Your task to perform on an android device: Empty the shopping cart on bestbuy.com. Search for macbook pro 13 inch on bestbuy.com, select the first entry, and add it to the cart. Image 0: 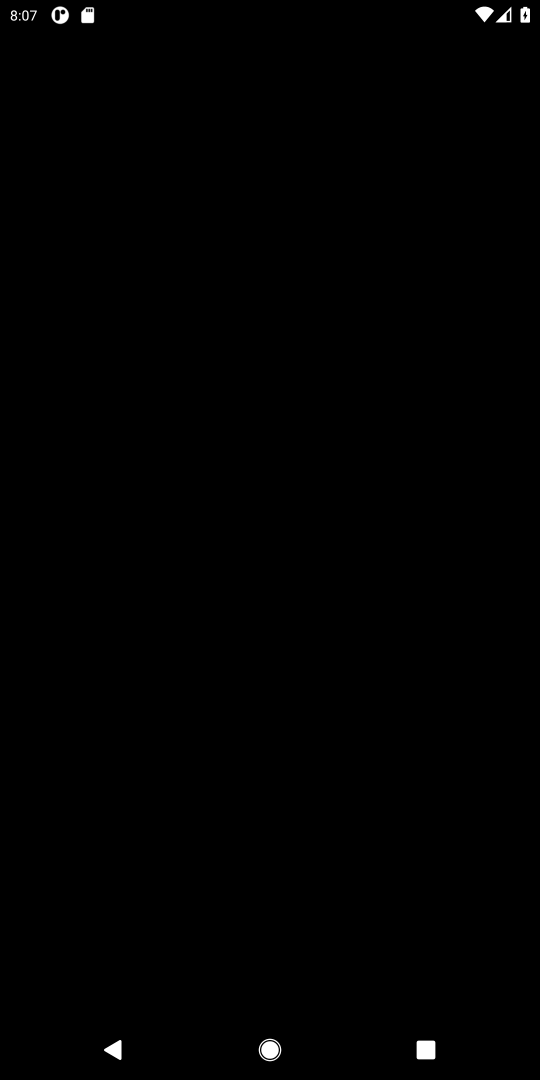
Step 0: press home button
Your task to perform on an android device: Empty the shopping cart on bestbuy.com. Search for macbook pro 13 inch on bestbuy.com, select the first entry, and add it to the cart. Image 1: 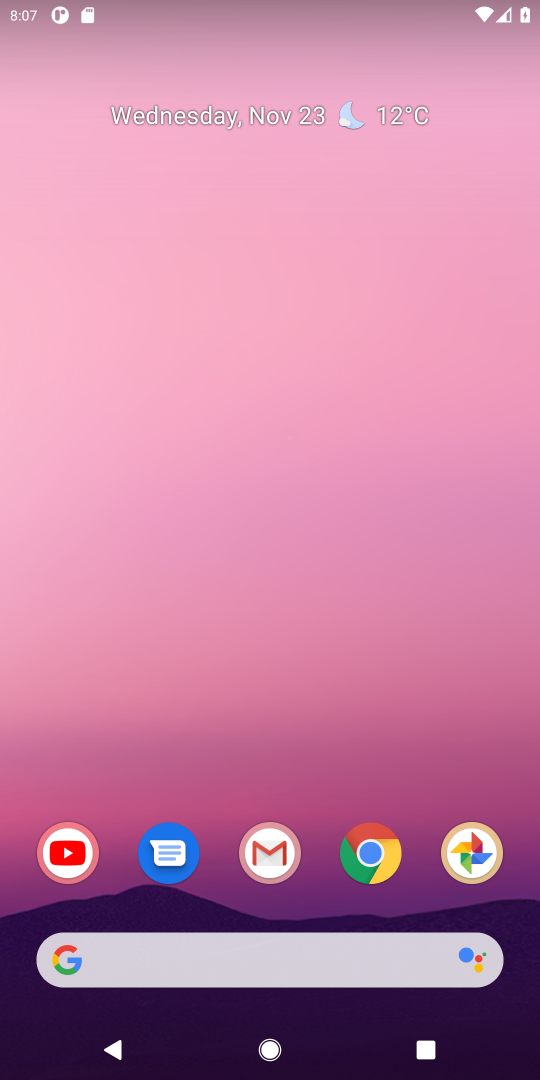
Step 1: click (370, 853)
Your task to perform on an android device: Empty the shopping cart on bestbuy.com. Search for macbook pro 13 inch on bestbuy.com, select the first entry, and add it to the cart. Image 2: 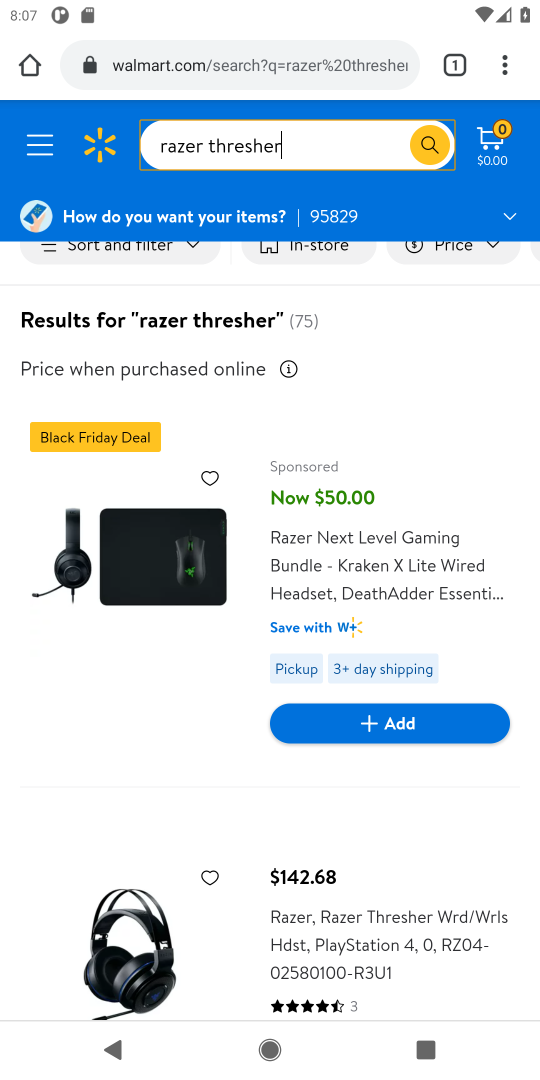
Step 2: click (201, 62)
Your task to perform on an android device: Empty the shopping cart on bestbuy.com. Search for macbook pro 13 inch on bestbuy.com, select the first entry, and add it to the cart. Image 3: 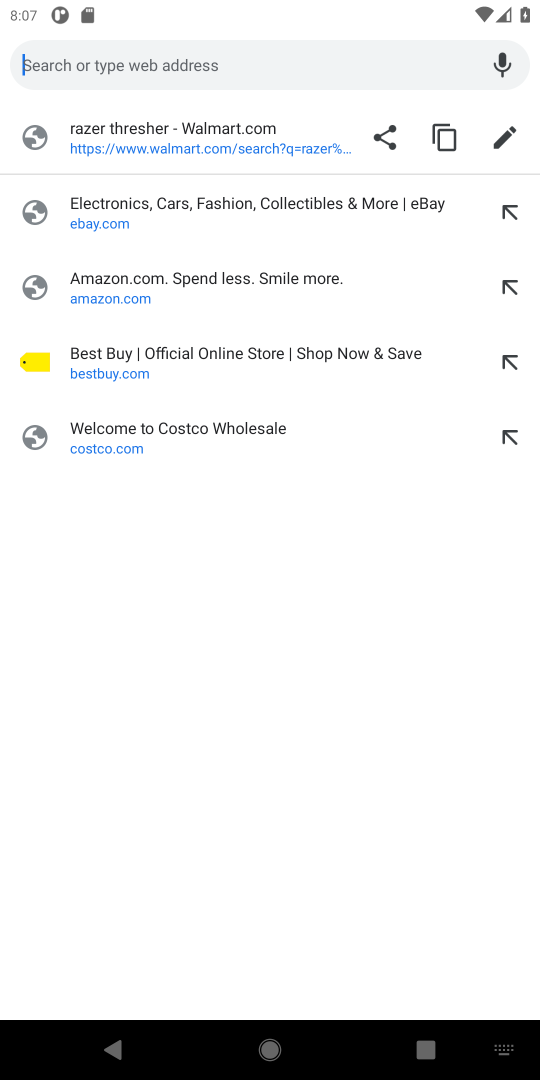
Step 3: click (96, 365)
Your task to perform on an android device: Empty the shopping cart on bestbuy.com. Search for macbook pro 13 inch on bestbuy.com, select the first entry, and add it to the cart. Image 4: 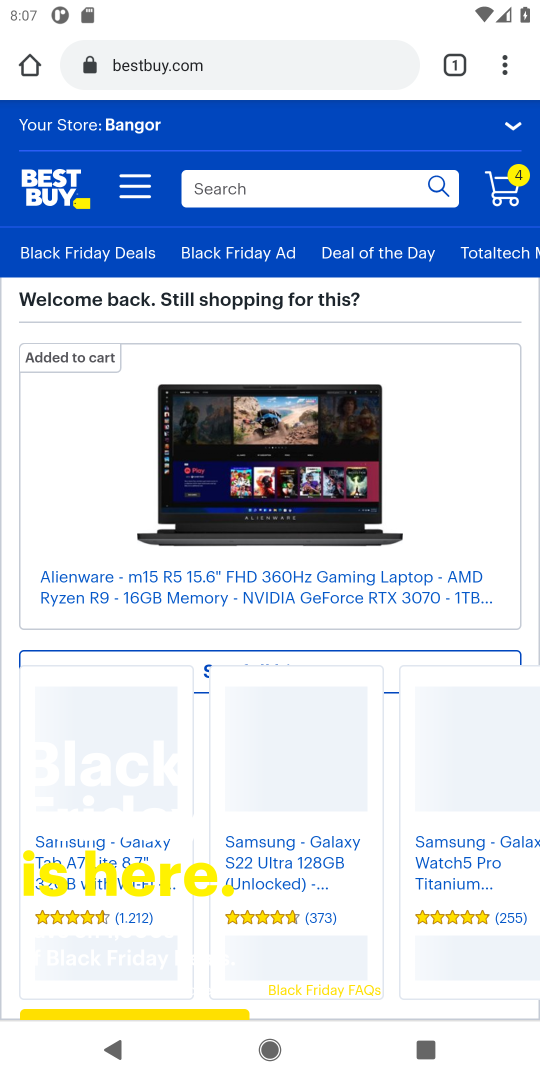
Step 4: click (509, 188)
Your task to perform on an android device: Empty the shopping cart on bestbuy.com. Search for macbook pro 13 inch on bestbuy.com, select the first entry, and add it to the cart. Image 5: 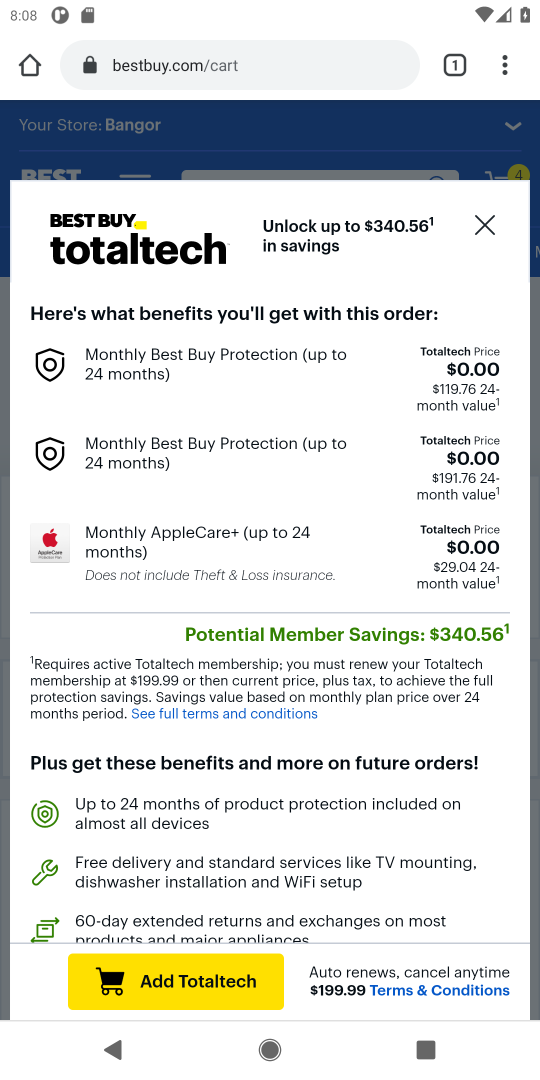
Step 5: click (478, 226)
Your task to perform on an android device: Empty the shopping cart on bestbuy.com. Search for macbook pro 13 inch on bestbuy.com, select the first entry, and add it to the cart. Image 6: 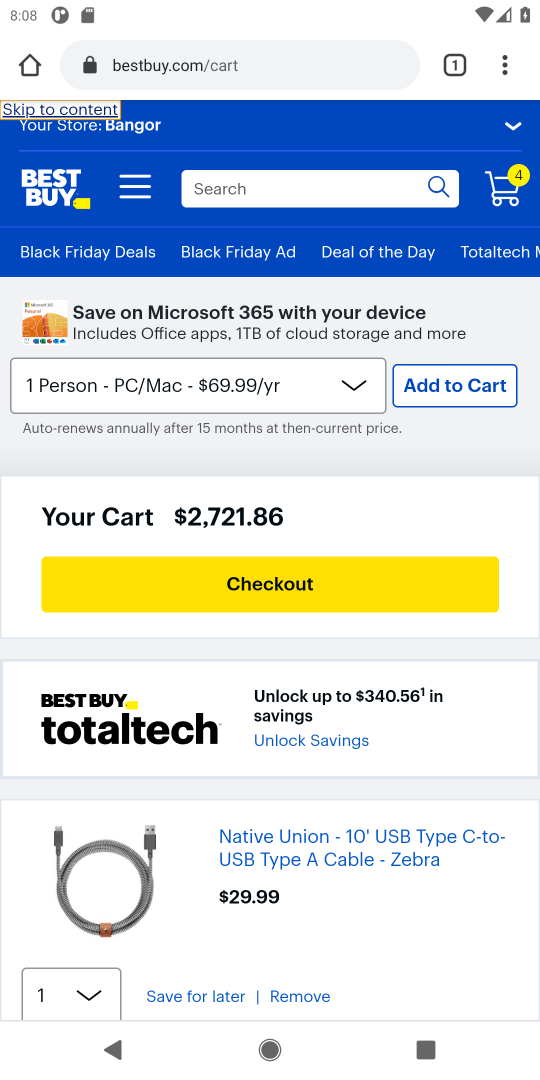
Step 6: drag from (331, 497) to (308, 195)
Your task to perform on an android device: Empty the shopping cart on bestbuy.com. Search for macbook pro 13 inch on bestbuy.com, select the first entry, and add it to the cart. Image 7: 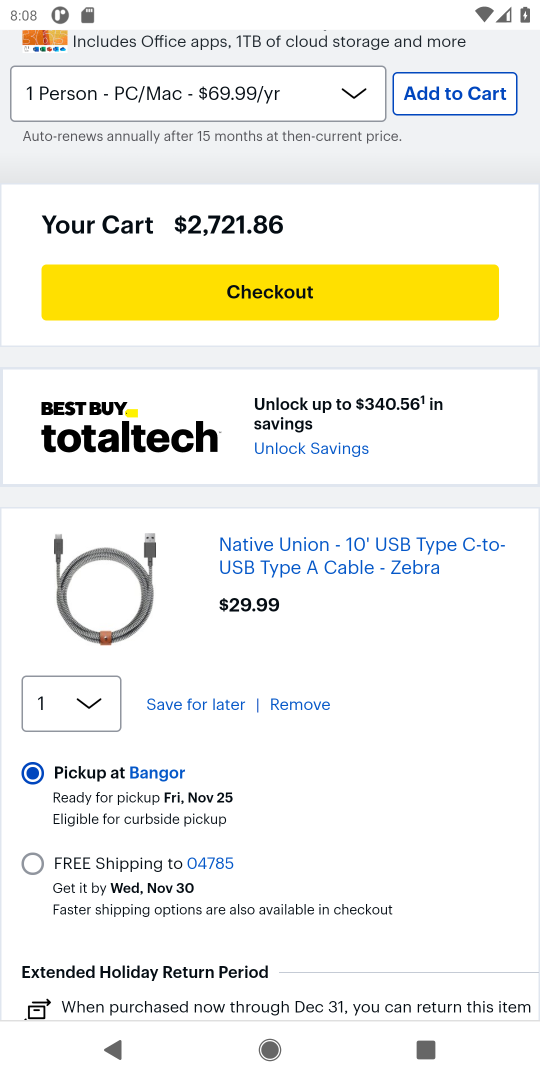
Step 7: click (305, 710)
Your task to perform on an android device: Empty the shopping cart on bestbuy.com. Search for macbook pro 13 inch on bestbuy.com, select the first entry, and add it to the cart. Image 8: 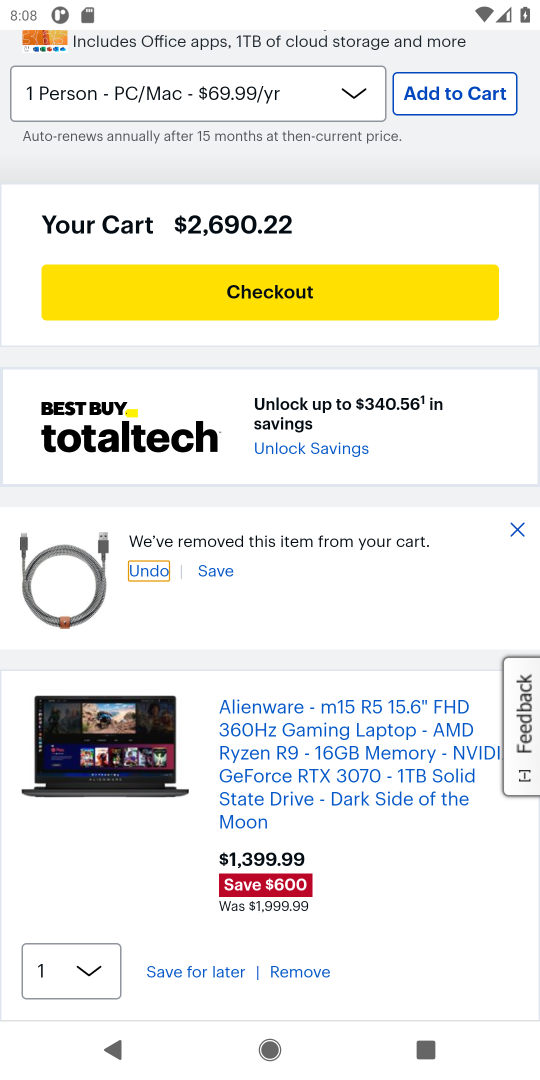
Step 8: drag from (301, 778) to (305, 403)
Your task to perform on an android device: Empty the shopping cart on bestbuy.com. Search for macbook pro 13 inch on bestbuy.com, select the first entry, and add it to the cart. Image 9: 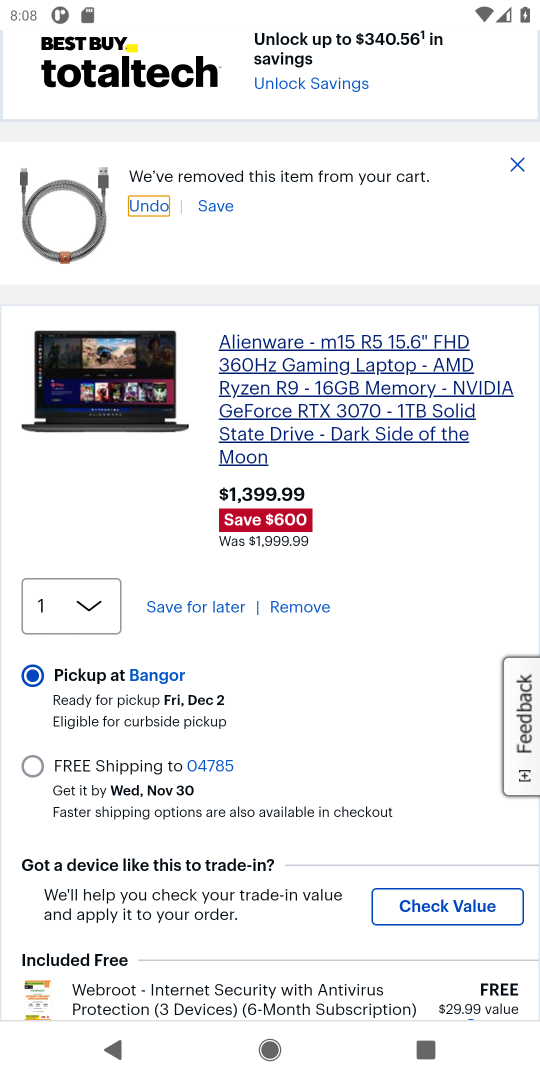
Step 9: click (292, 605)
Your task to perform on an android device: Empty the shopping cart on bestbuy.com. Search for macbook pro 13 inch on bestbuy.com, select the first entry, and add it to the cart. Image 10: 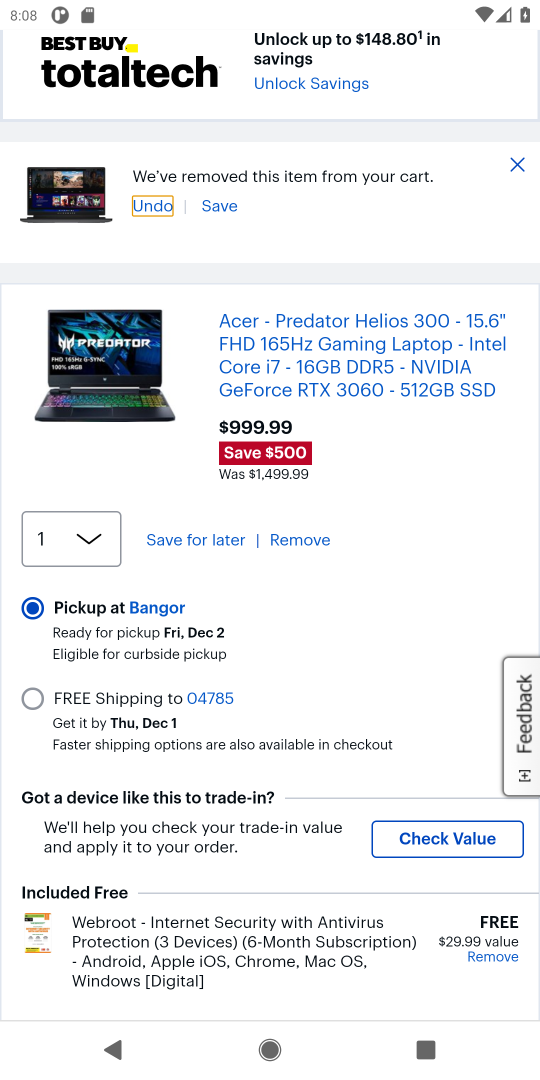
Step 10: click (296, 544)
Your task to perform on an android device: Empty the shopping cart on bestbuy.com. Search for macbook pro 13 inch on bestbuy.com, select the first entry, and add it to the cart. Image 11: 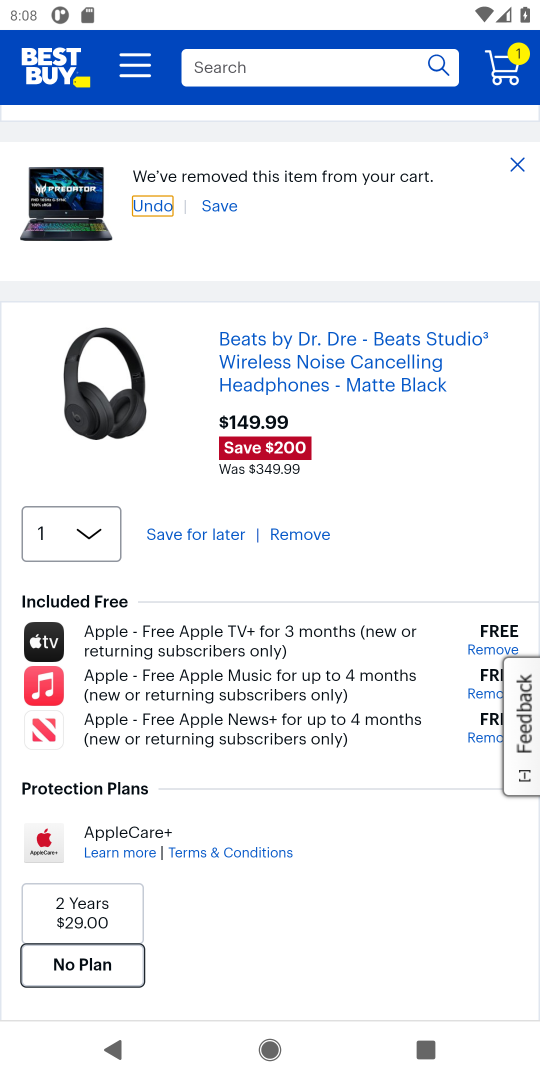
Step 11: click (296, 544)
Your task to perform on an android device: Empty the shopping cart on bestbuy.com. Search for macbook pro 13 inch on bestbuy.com, select the first entry, and add it to the cart. Image 12: 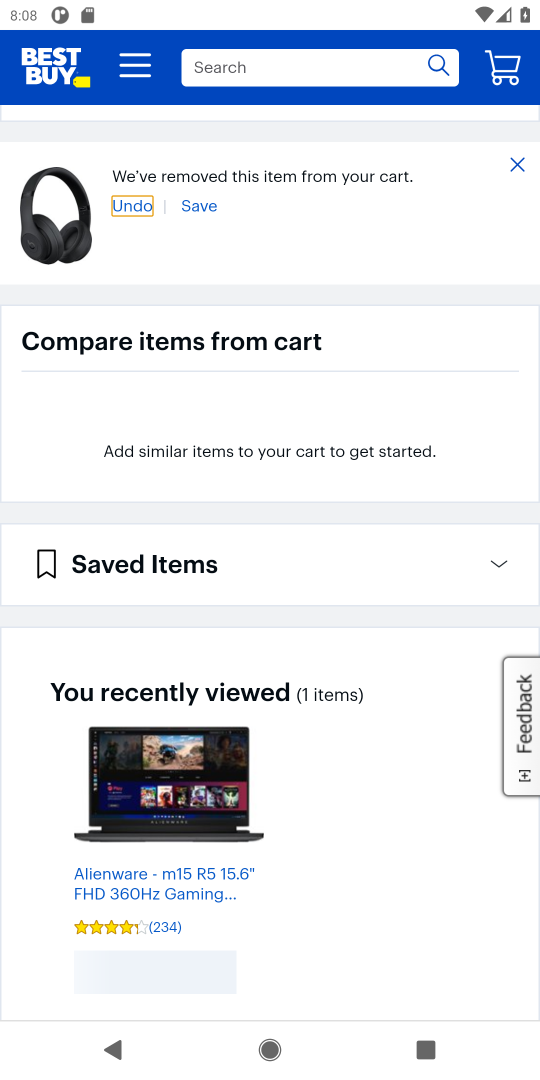
Step 12: drag from (385, 439) to (372, 636)
Your task to perform on an android device: Empty the shopping cart on bestbuy.com. Search for macbook pro 13 inch on bestbuy.com, select the first entry, and add it to the cart. Image 13: 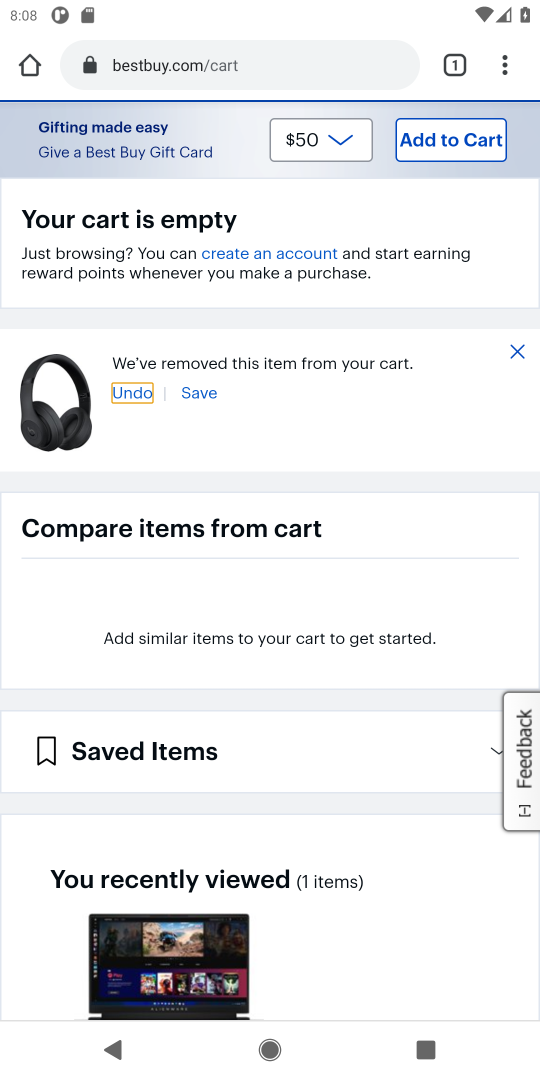
Step 13: drag from (249, 348) to (242, 673)
Your task to perform on an android device: Empty the shopping cart on bestbuy.com. Search for macbook pro 13 inch on bestbuy.com, select the first entry, and add it to the cart. Image 14: 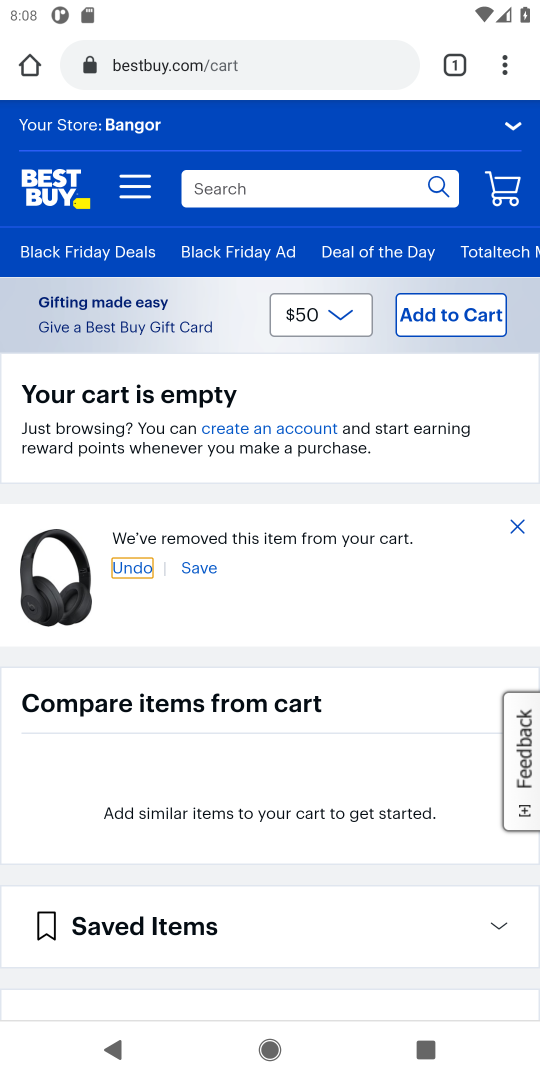
Step 14: click (228, 193)
Your task to perform on an android device: Empty the shopping cart on bestbuy.com. Search for macbook pro 13 inch on bestbuy.com, select the first entry, and add it to the cart. Image 15: 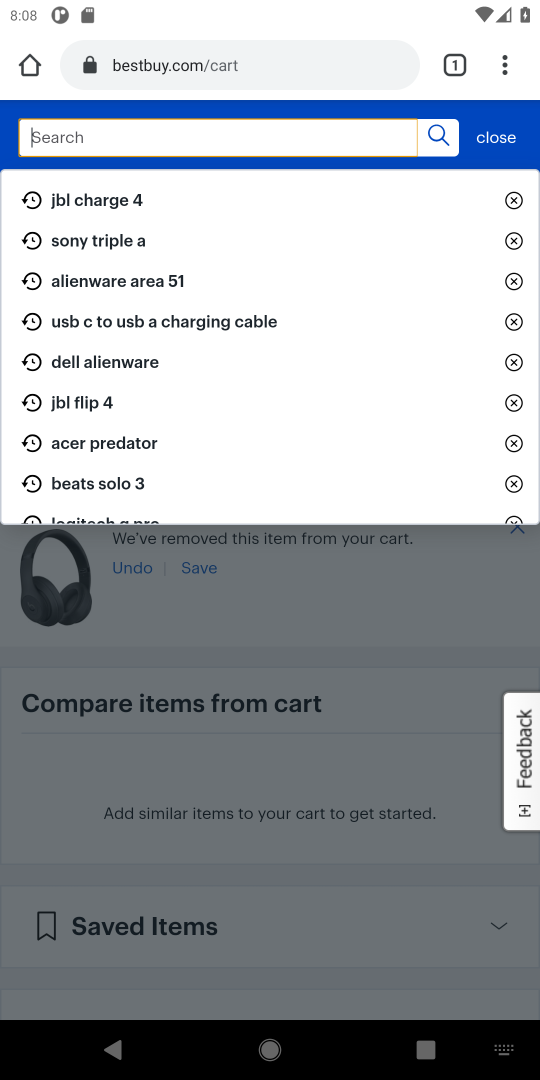
Step 15: type " macbook pro 13 inch "
Your task to perform on an android device: Empty the shopping cart on bestbuy.com. Search for macbook pro 13 inch on bestbuy.com, select the first entry, and add it to the cart. Image 16: 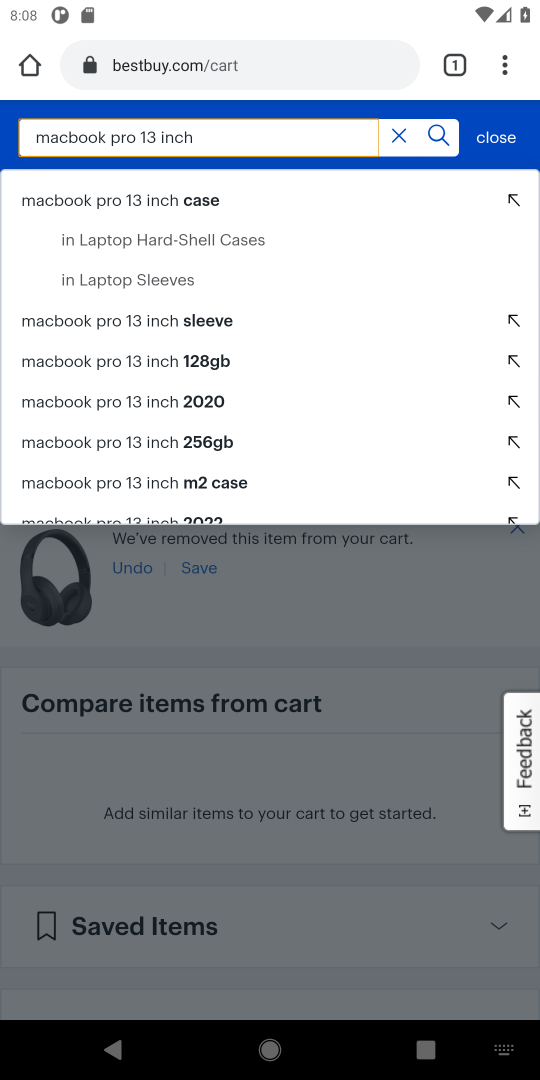
Step 16: click (438, 141)
Your task to perform on an android device: Empty the shopping cart on bestbuy.com. Search for macbook pro 13 inch on bestbuy.com, select the first entry, and add it to the cart. Image 17: 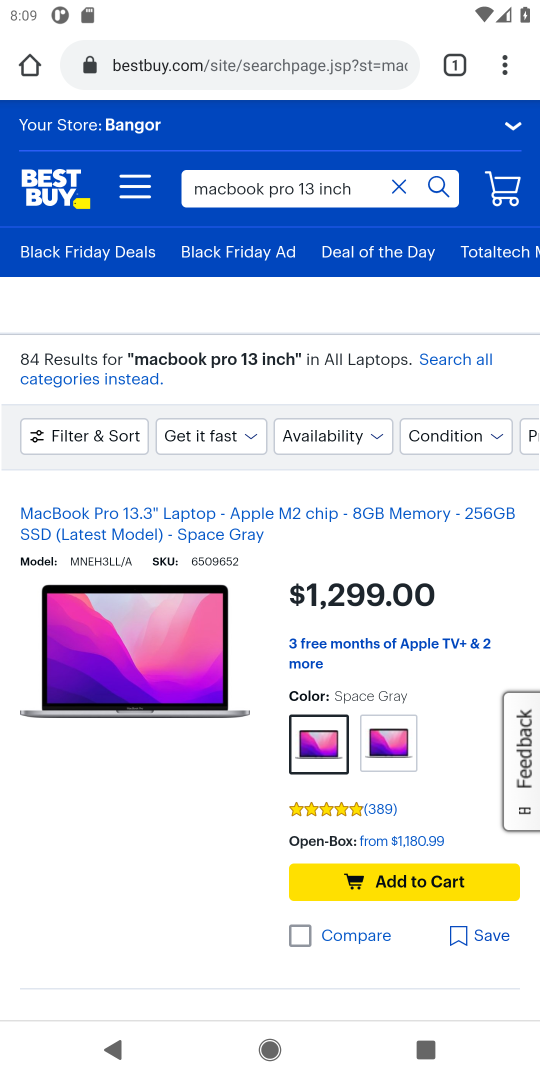
Step 17: click (388, 877)
Your task to perform on an android device: Empty the shopping cart on bestbuy.com. Search for macbook pro 13 inch on bestbuy.com, select the first entry, and add it to the cart. Image 18: 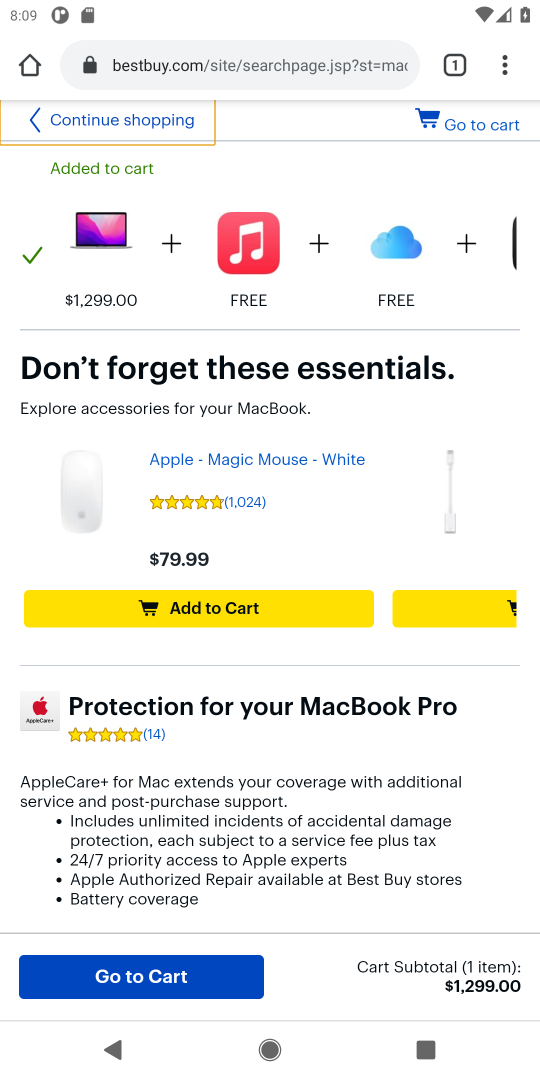
Step 18: task complete